Your task to perform on an android device: Open settings on Google Maps Image 0: 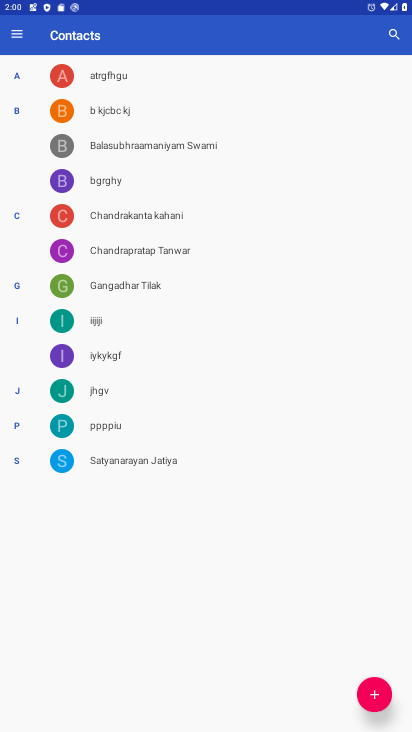
Step 0: press home button
Your task to perform on an android device: Open settings on Google Maps Image 1: 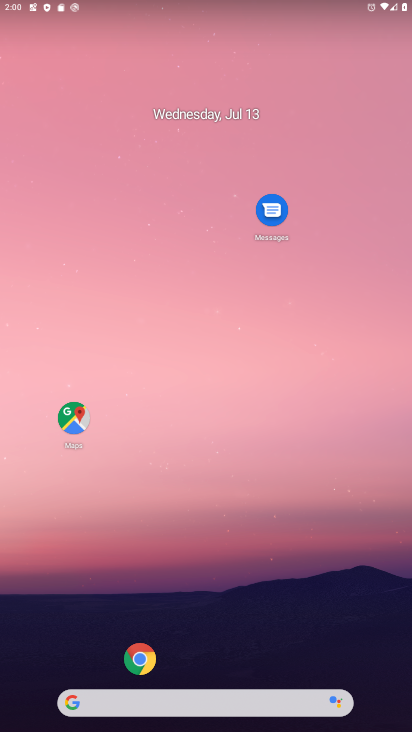
Step 1: click (68, 411)
Your task to perform on an android device: Open settings on Google Maps Image 2: 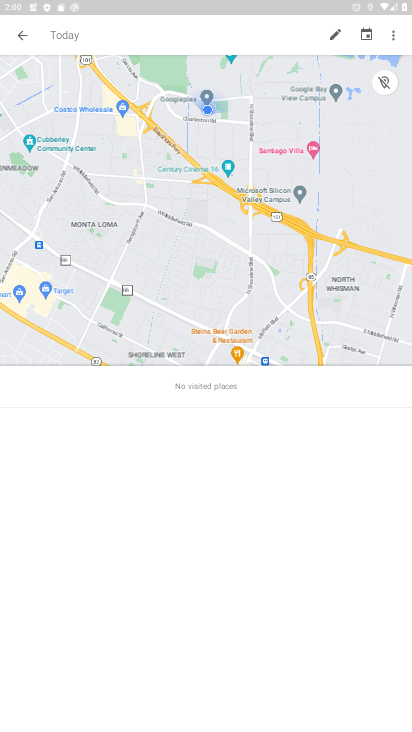
Step 2: click (17, 34)
Your task to perform on an android device: Open settings on Google Maps Image 3: 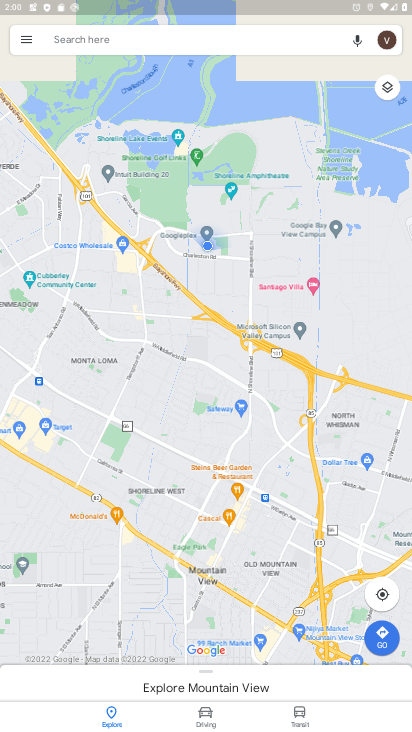
Step 3: click (24, 43)
Your task to perform on an android device: Open settings on Google Maps Image 4: 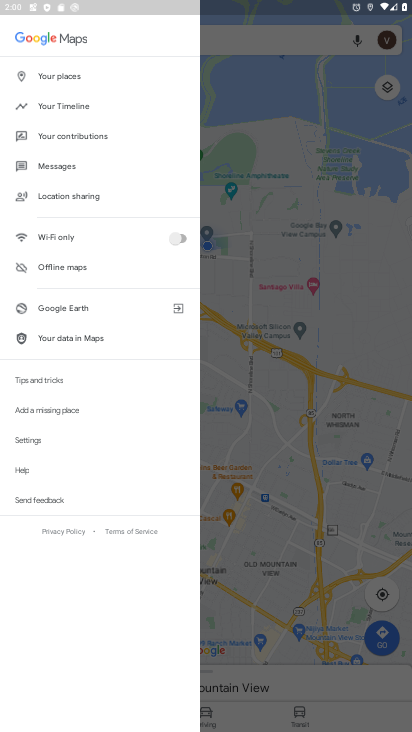
Step 4: click (41, 438)
Your task to perform on an android device: Open settings on Google Maps Image 5: 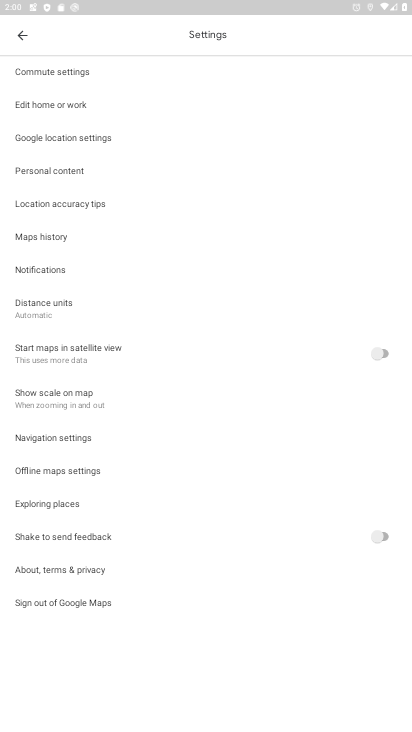
Step 5: task complete